Your task to perform on an android device: turn off priority inbox in the gmail app Image 0: 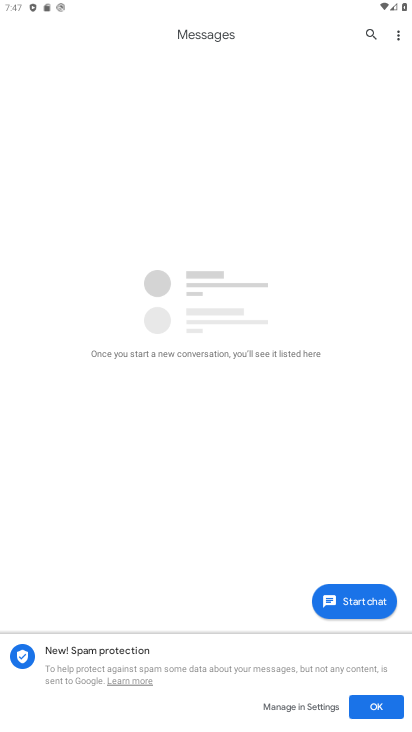
Step 0: press home button
Your task to perform on an android device: turn off priority inbox in the gmail app Image 1: 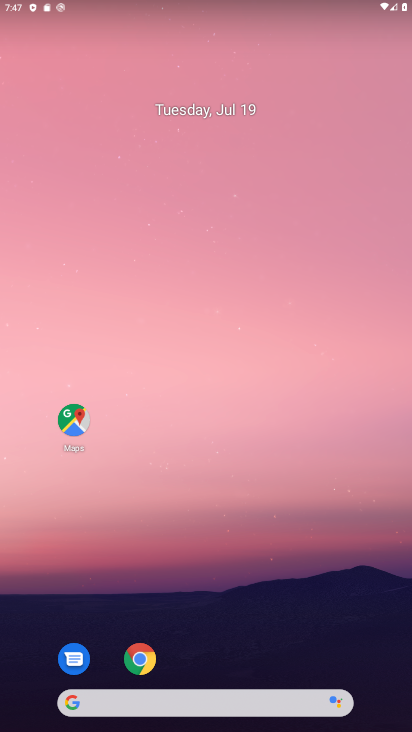
Step 1: drag from (154, 686) to (229, 252)
Your task to perform on an android device: turn off priority inbox in the gmail app Image 2: 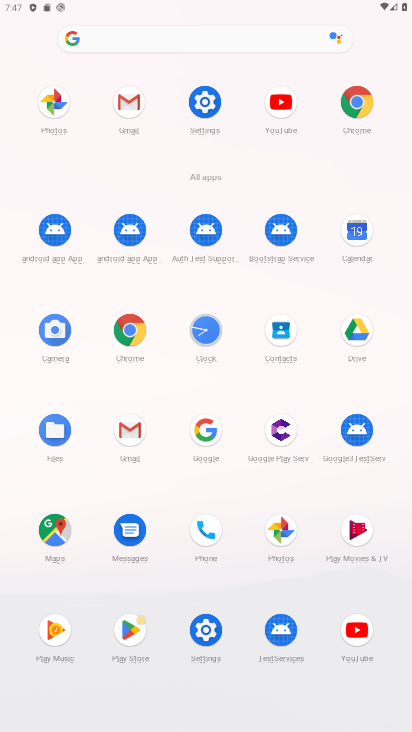
Step 2: click (133, 429)
Your task to perform on an android device: turn off priority inbox in the gmail app Image 3: 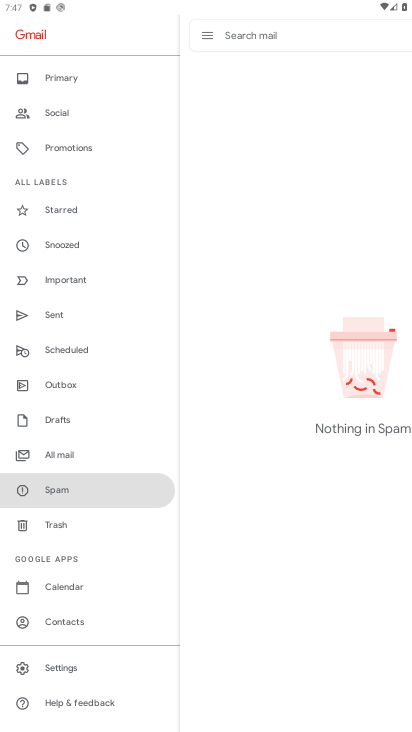
Step 3: click (65, 667)
Your task to perform on an android device: turn off priority inbox in the gmail app Image 4: 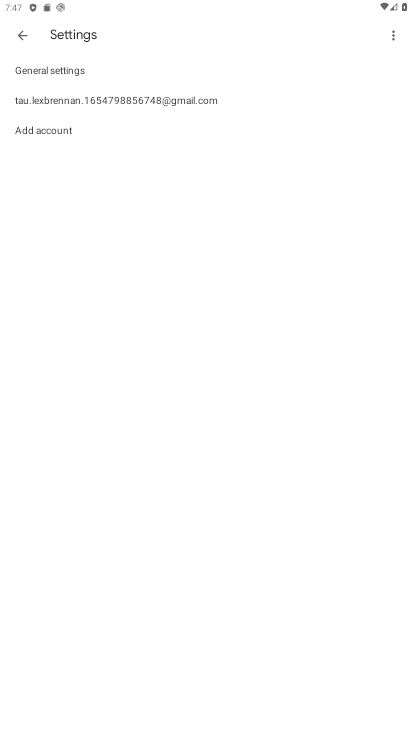
Step 4: click (56, 94)
Your task to perform on an android device: turn off priority inbox in the gmail app Image 5: 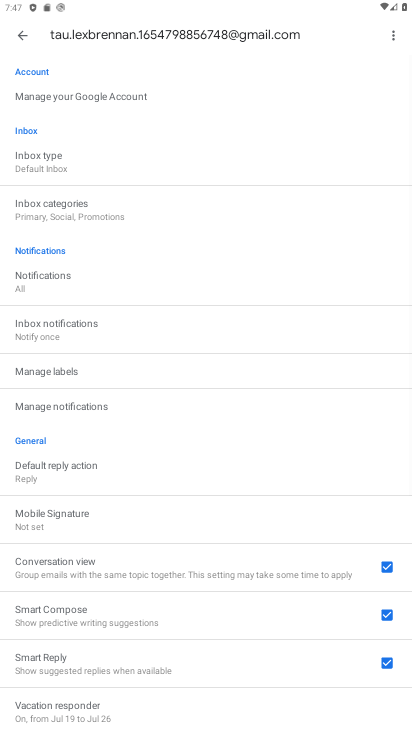
Step 5: click (34, 163)
Your task to perform on an android device: turn off priority inbox in the gmail app Image 6: 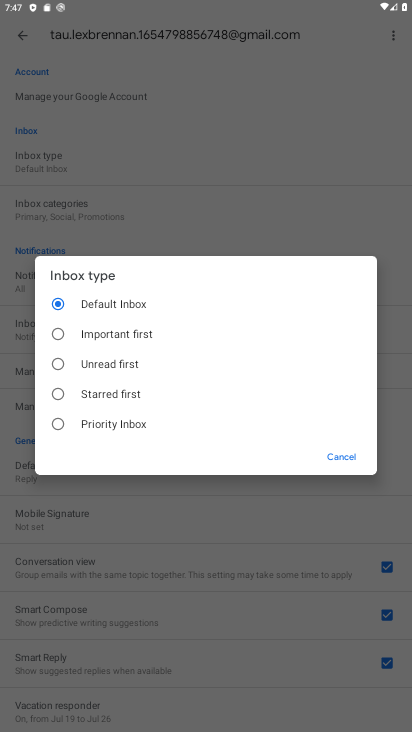
Step 6: click (108, 334)
Your task to perform on an android device: turn off priority inbox in the gmail app Image 7: 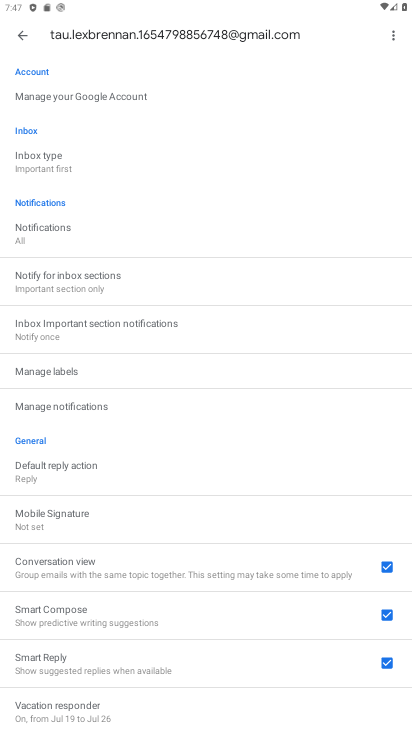
Step 7: task complete